Your task to perform on an android device: Open the web browser Image 0: 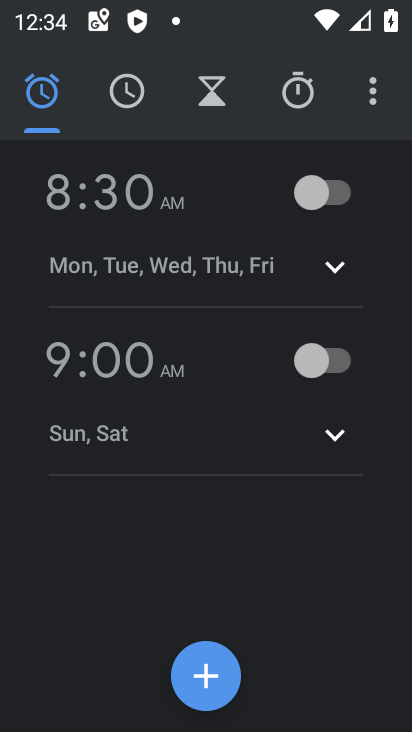
Step 0: press home button
Your task to perform on an android device: Open the web browser Image 1: 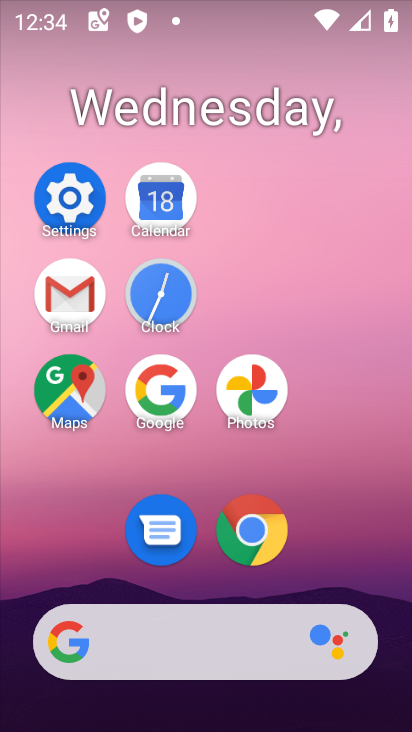
Step 1: click (267, 527)
Your task to perform on an android device: Open the web browser Image 2: 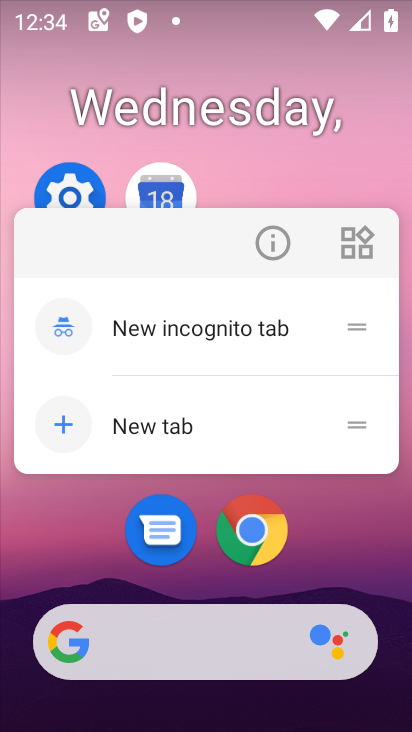
Step 2: click (265, 525)
Your task to perform on an android device: Open the web browser Image 3: 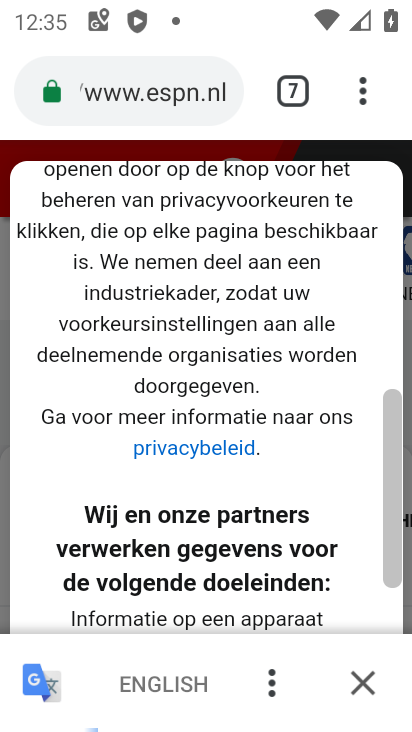
Step 3: task complete